Your task to perform on an android device: Go to ESPN.com Image 0: 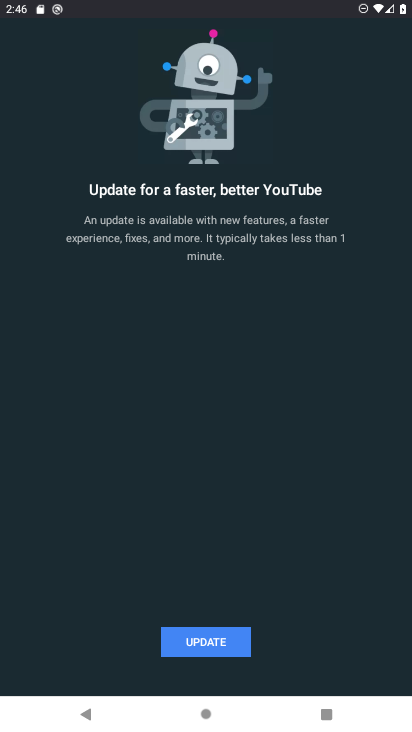
Step 0: click (206, 711)
Your task to perform on an android device: Go to ESPN.com Image 1: 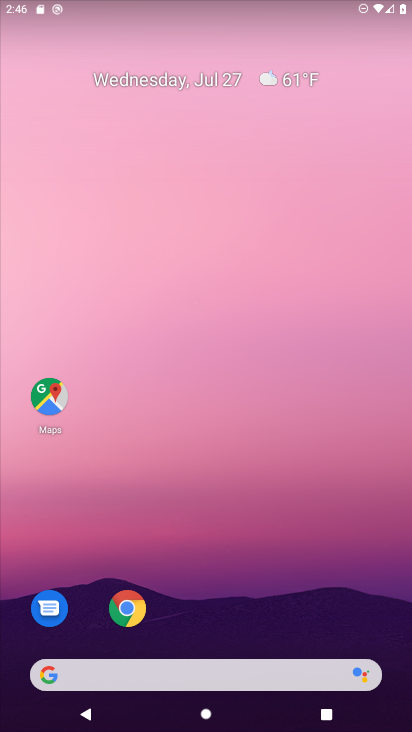
Step 1: click (136, 609)
Your task to perform on an android device: Go to ESPN.com Image 2: 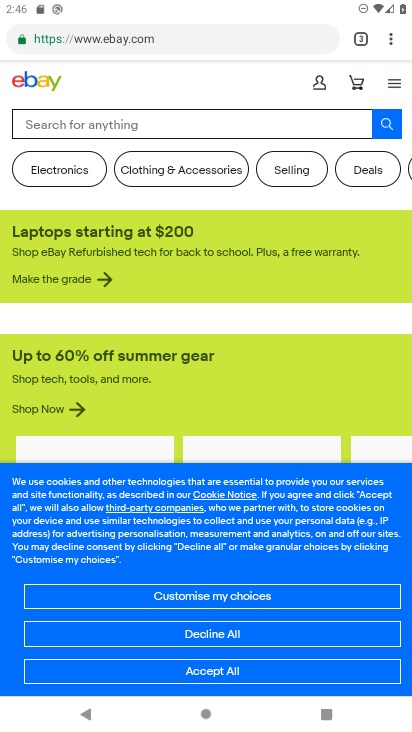
Step 2: click (86, 711)
Your task to perform on an android device: Go to ESPN.com Image 3: 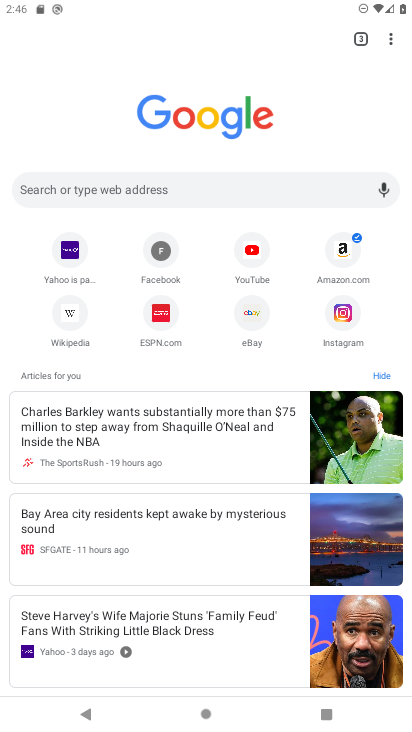
Step 3: click (156, 325)
Your task to perform on an android device: Go to ESPN.com Image 4: 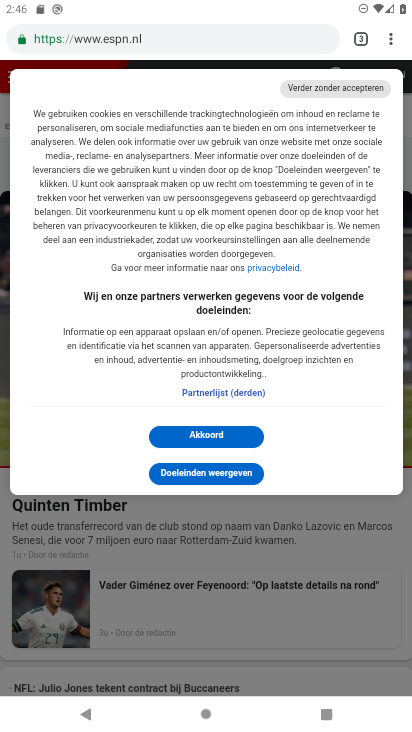
Step 4: task complete